Your task to perform on an android device: Open Amazon Image 0: 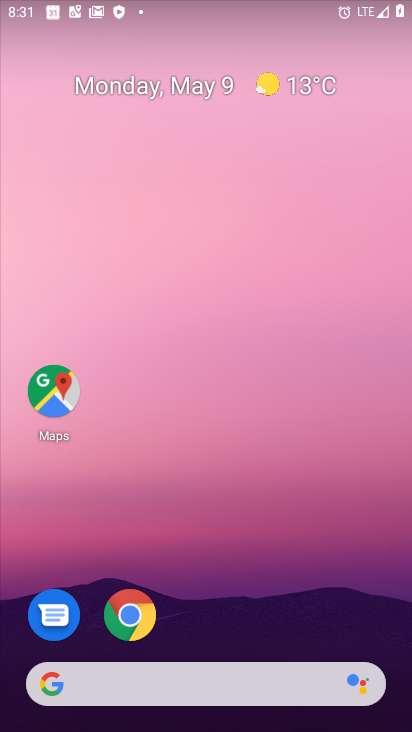
Step 0: click (129, 604)
Your task to perform on an android device: Open Amazon Image 1: 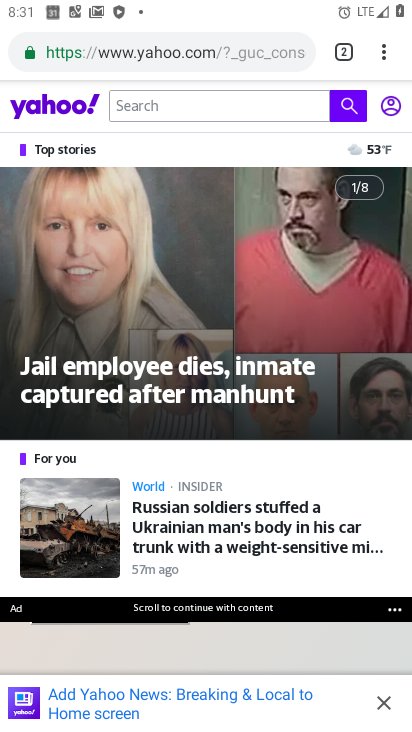
Step 1: click (341, 52)
Your task to perform on an android device: Open Amazon Image 2: 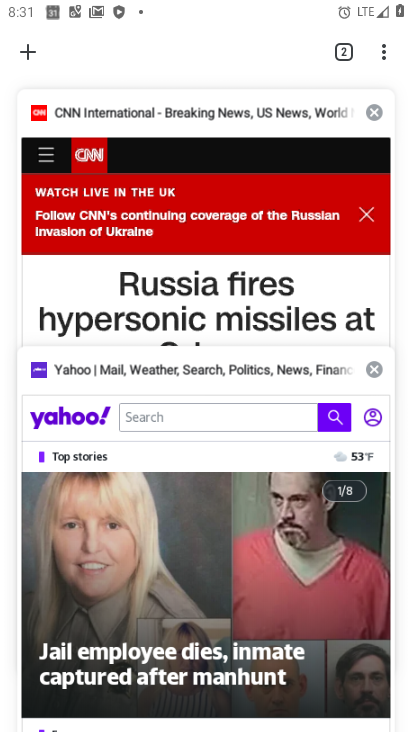
Step 2: click (40, 58)
Your task to perform on an android device: Open Amazon Image 3: 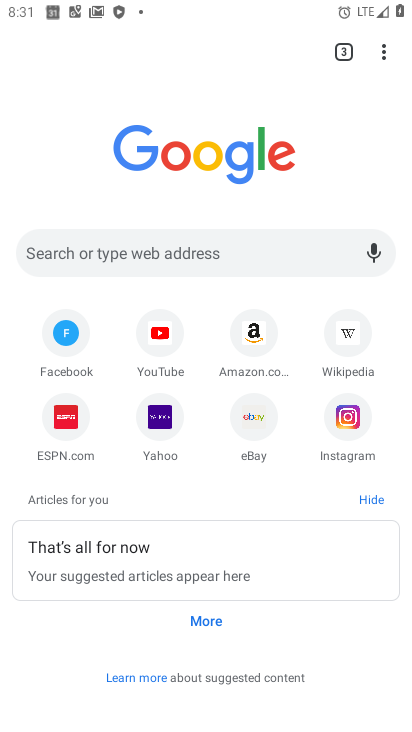
Step 3: click (256, 337)
Your task to perform on an android device: Open Amazon Image 4: 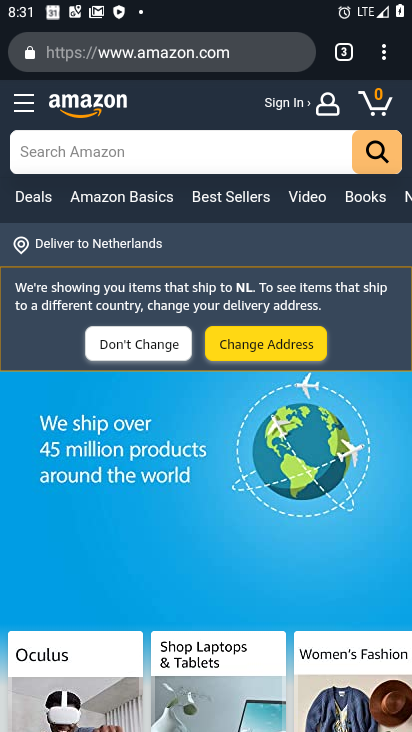
Step 4: task complete